Your task to perform on an android device: What's the weather? Image 0: 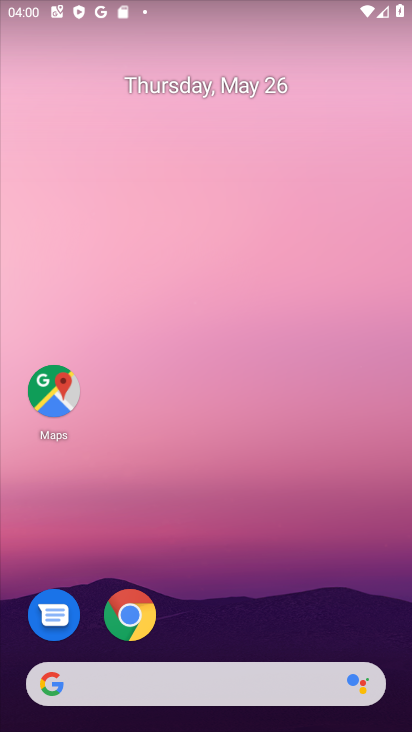
Step 0: click (188, 691)
Your task to perform on an android device: What's the weather? Image 1: 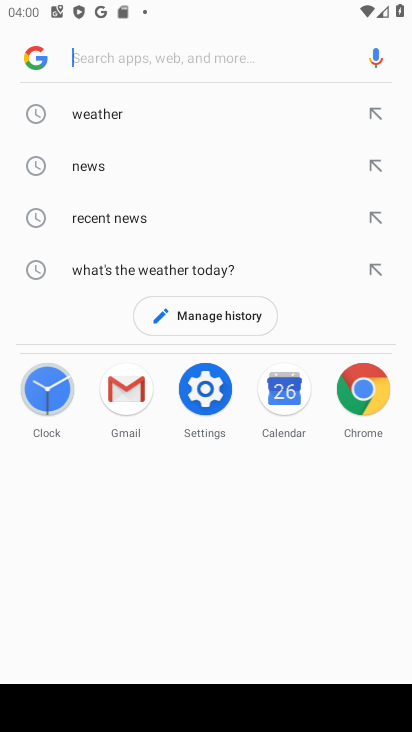
Step 1: click (95, 116)
Your task to perform on an android device: What's the weather? Image 2: 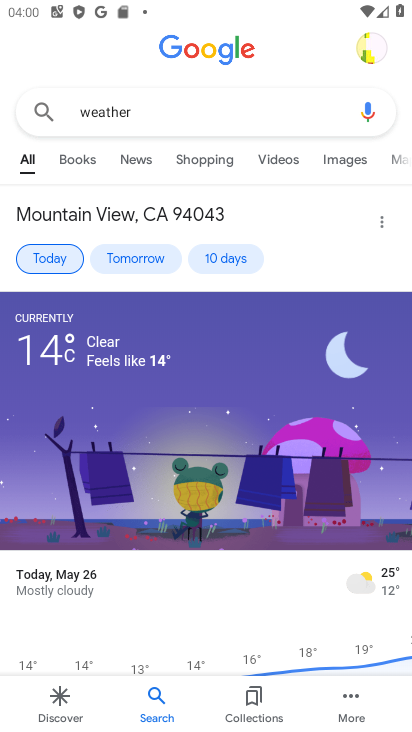
Step 2: task complete